Your task to perform on an android device: change the clock display to analog Image 0: 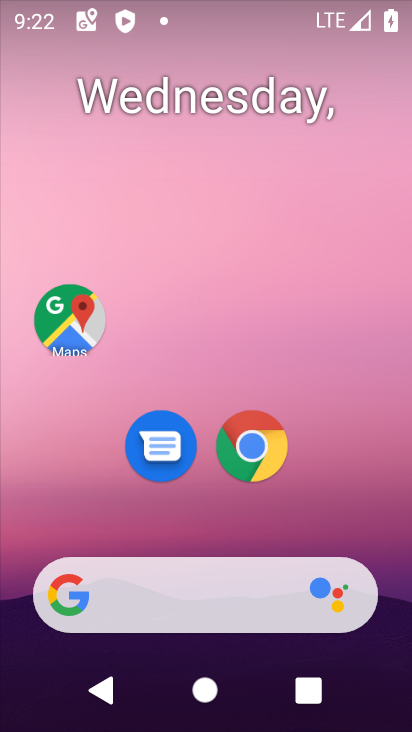
Step 0: press home button
Your task to perform on an android device: change the clock display to analog Image 1: 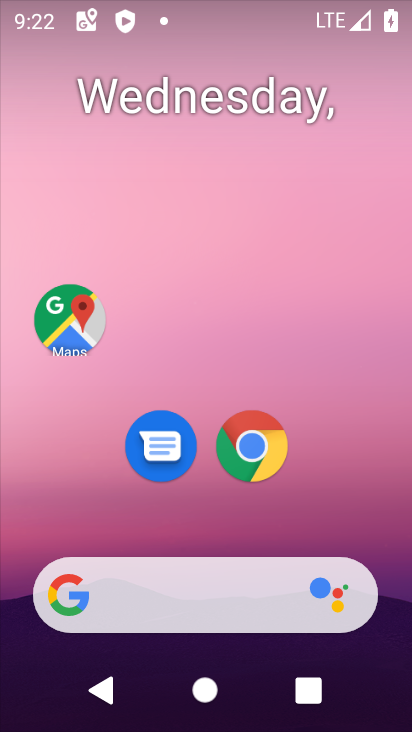
Step 1: drag from (194, 597) to (311, 170)
Your task to perform on an android device: change the clock display to analog Image 2: 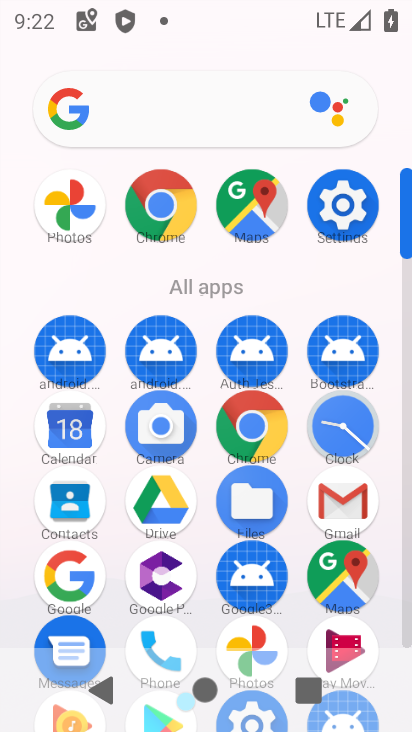
Step 2: click (333, 414)
Your task to perform on an android device: change the clock display to analog Image 3: 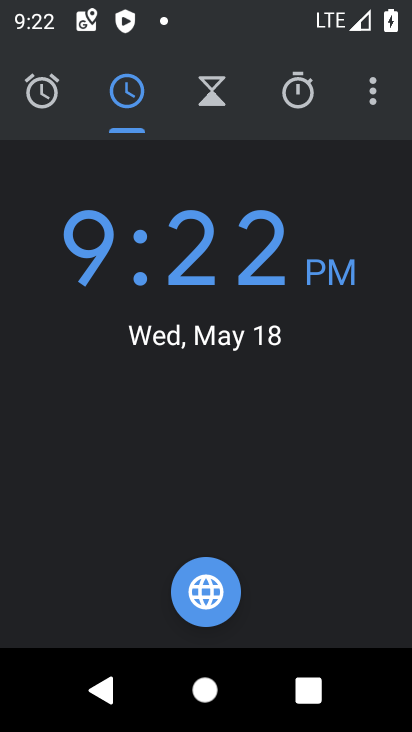
Step 3: click (373, 100)
Your task to perform on an android device: change the clock display to analog Image 4: 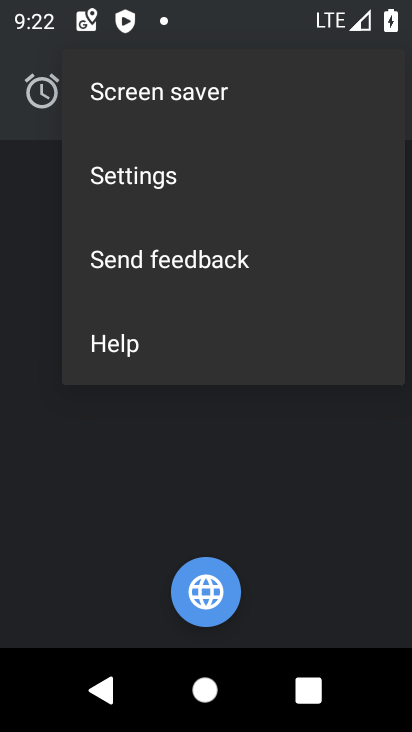
Step 4: click (128, 182)
Your task to perform on an android device: change the clock display to analog Image 5: 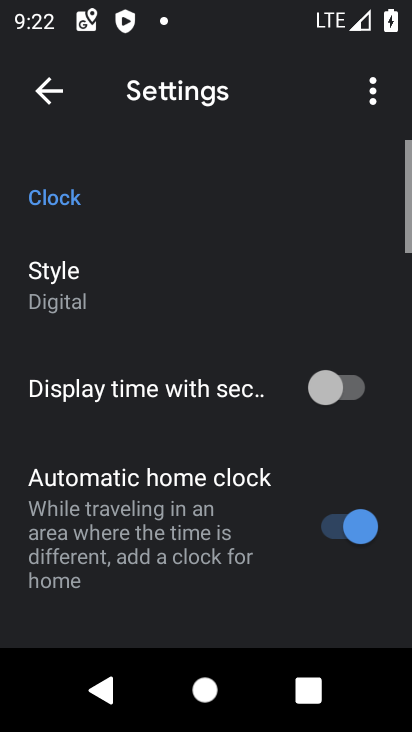
Step 5: click (88, 297)
Your task to perform on an android device: change the clock display to analog Image 6: 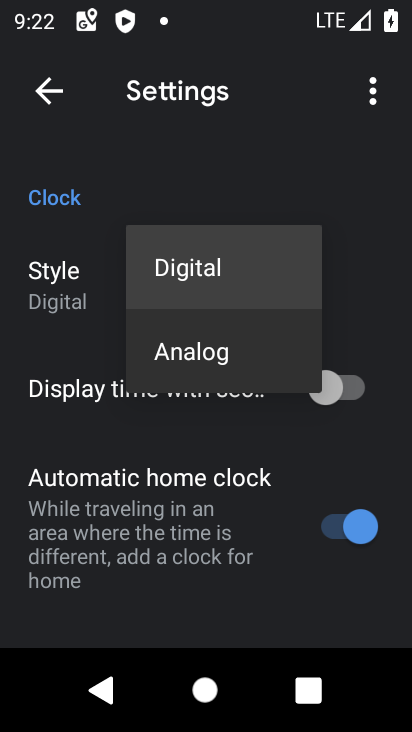
Step 6: click (182, 345)
Your task to perform on an android device: change the clock display to analog Image 7: 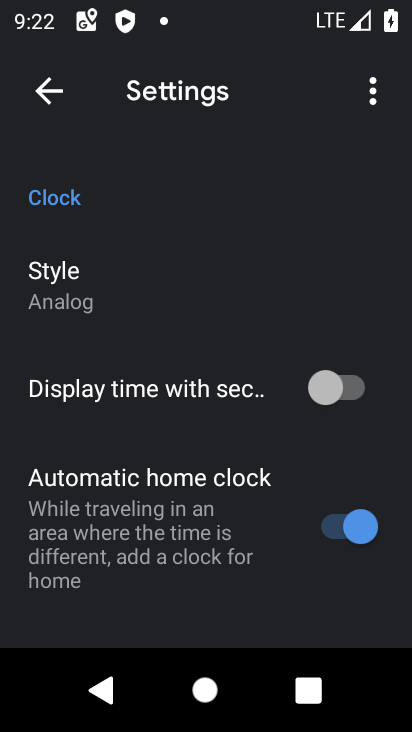
Step 7: task complete